Your task to perform on an android device: Go to notification settings Image 0: 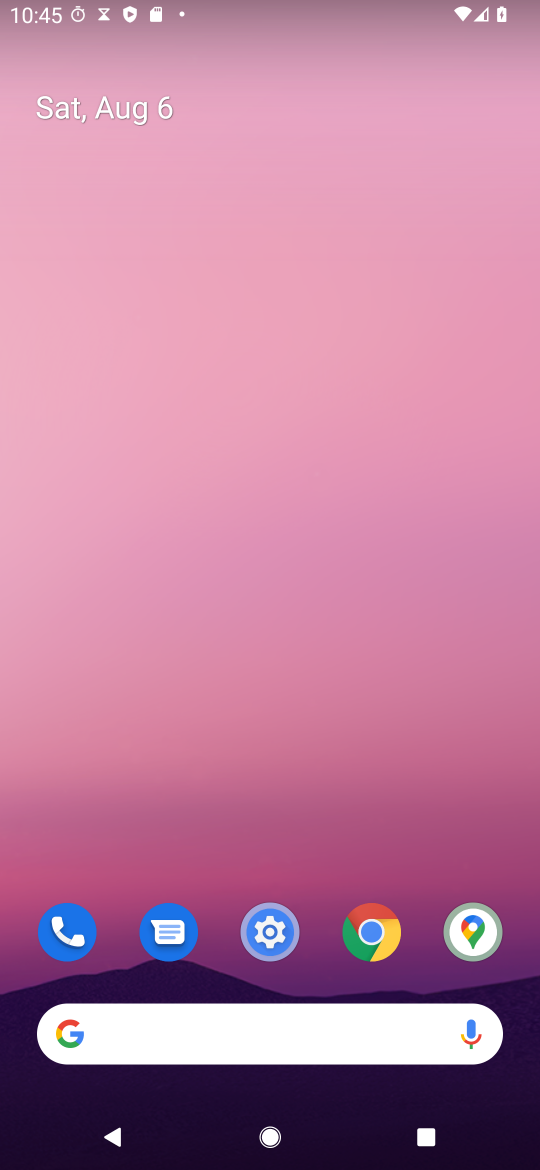
Step 0: drag from (262, 1061) to (338, 192)
Your task to perform on an android device: Go to notification settings Image 1: 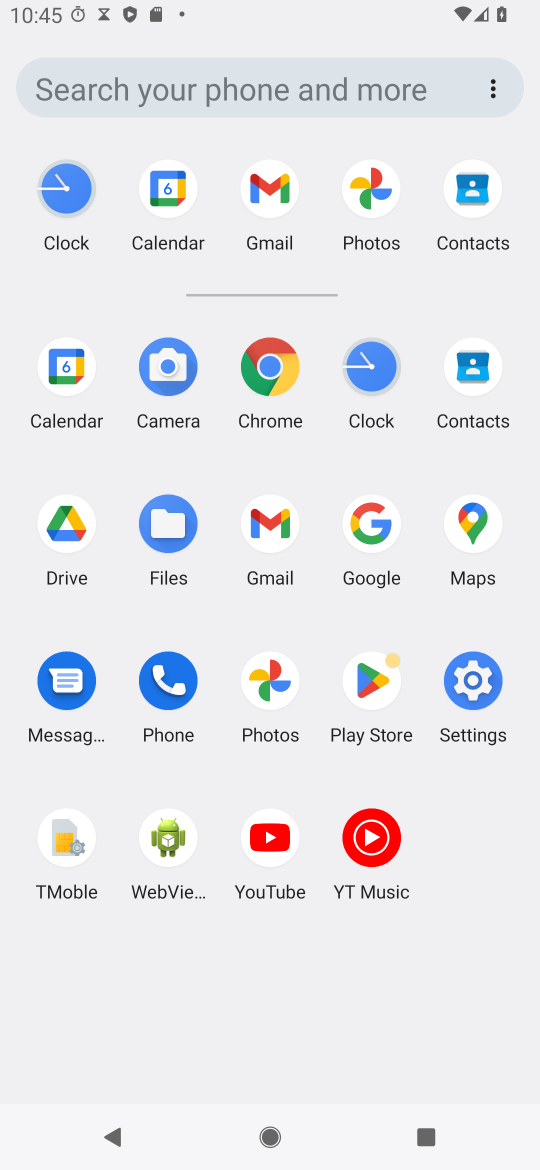
Step 1: click (472, 677)
Your task to perform on an android device: Go to notification settings Image 2: 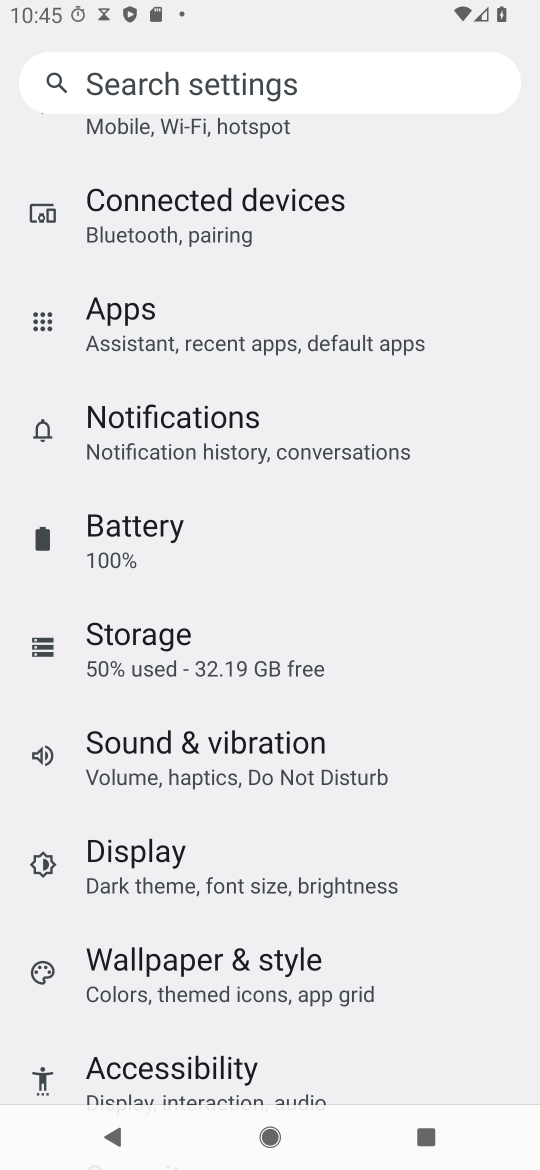
Step 2: drag from (279, 293) to (260, 614)
Your task to perform on an android device: Go to notification settings Image 3: 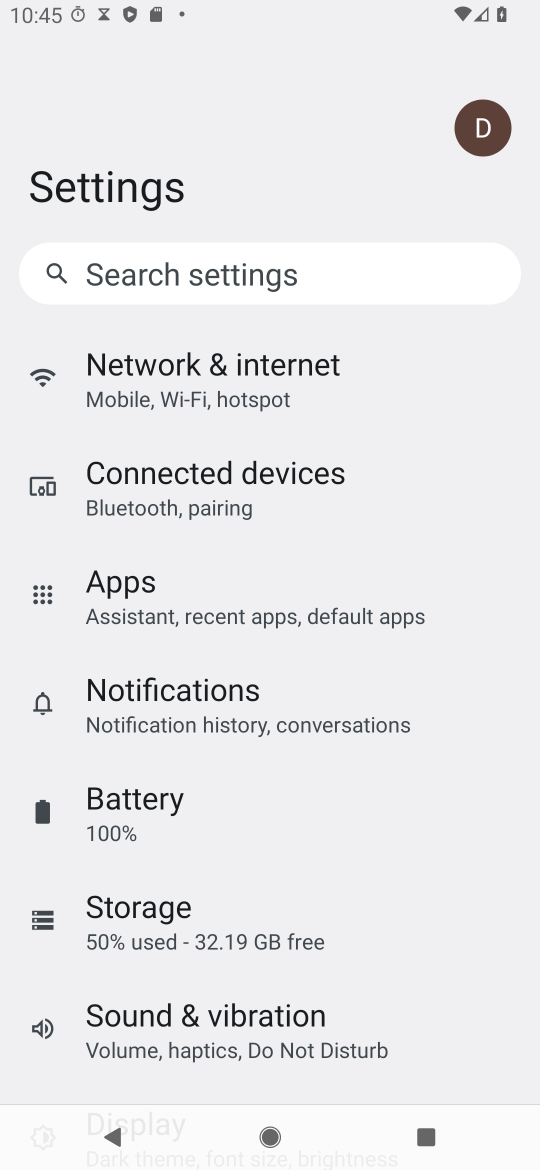
Step 3: click (202, 706)
Your task to perform on an android device: Go to notification settings Image 4: 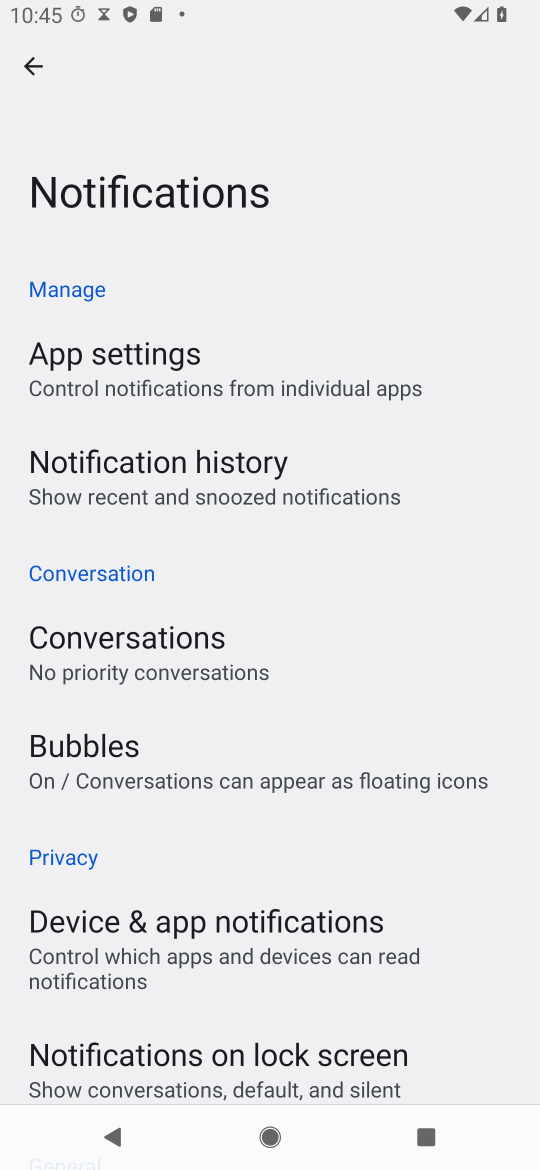
Step 4: task complete